Your task to perform on an android device: Open Yahoo.com Image 0: 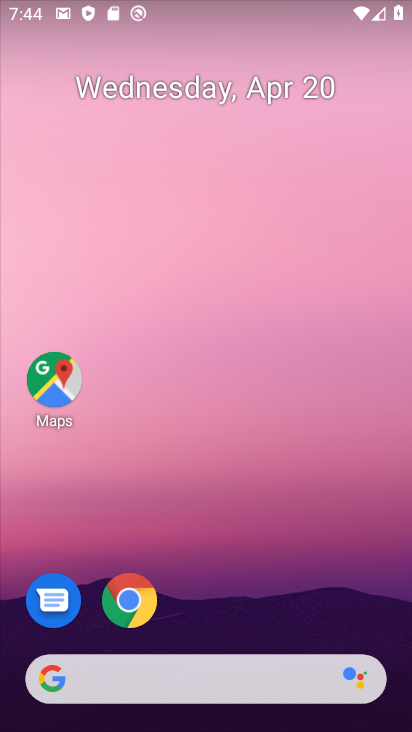
Step 0: click (130, 602)
Your task to perform on an android device: Open Yahoo.com Image 1: 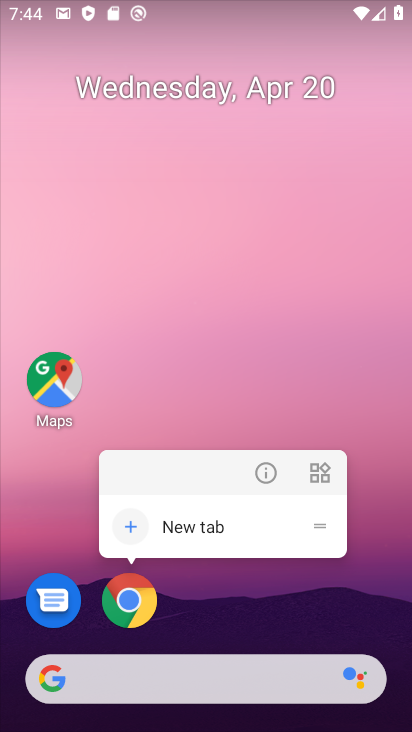
Step 1: click (130, 609)
Your task to perform on an android device: Open Yahoo.com Image 2: 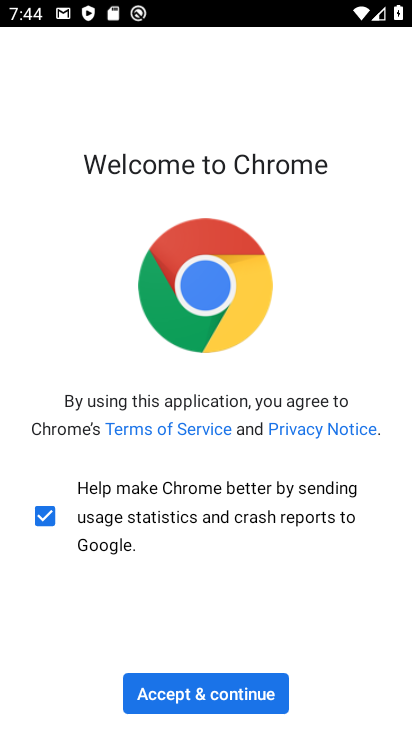
Step 2: click (221, 692)
Your task to perform on an android device: Open Yahoo.com Image 3: 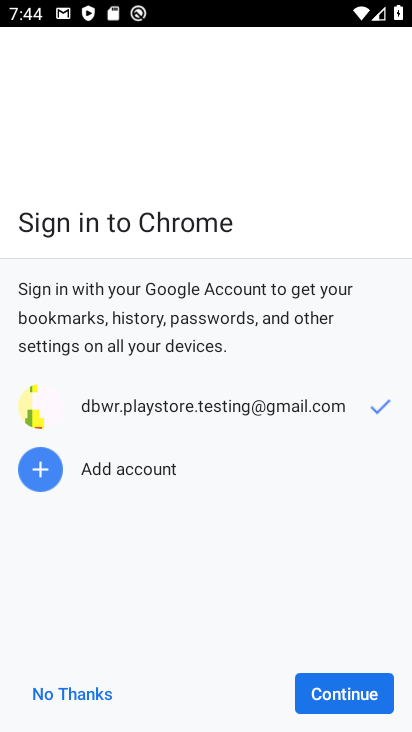
Step 3: click (355, 696)
Your task to perform on an android device: Open Yahoo.com Image 4: 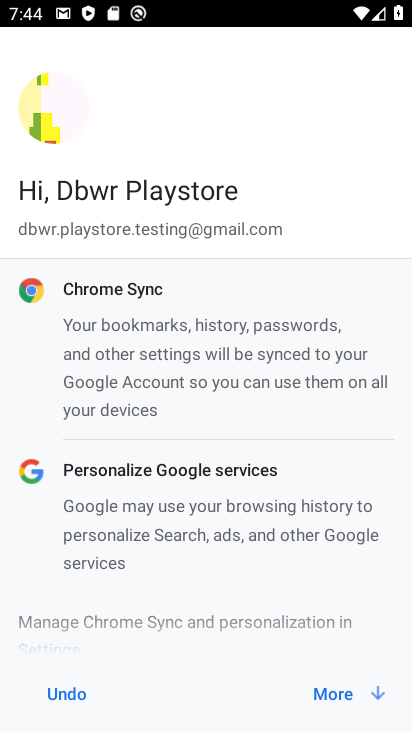
Step 4: click (332, 694)
Your task to perform on an android device: Open Yahoo.com Image 5: 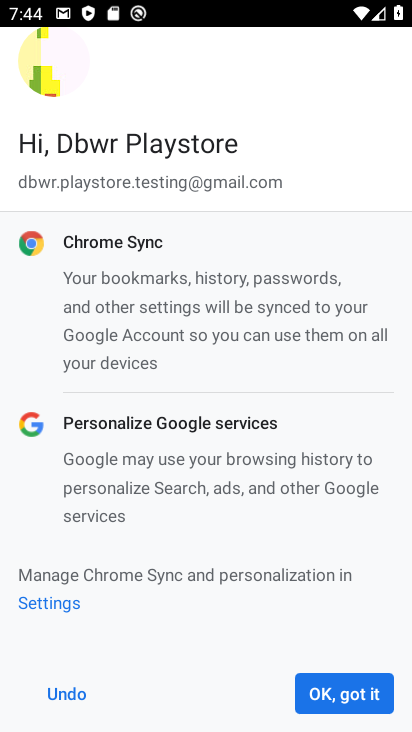
Step 5: click (332, 694)
Your task to perform on an android device: Open Yahoo.com Image 6: 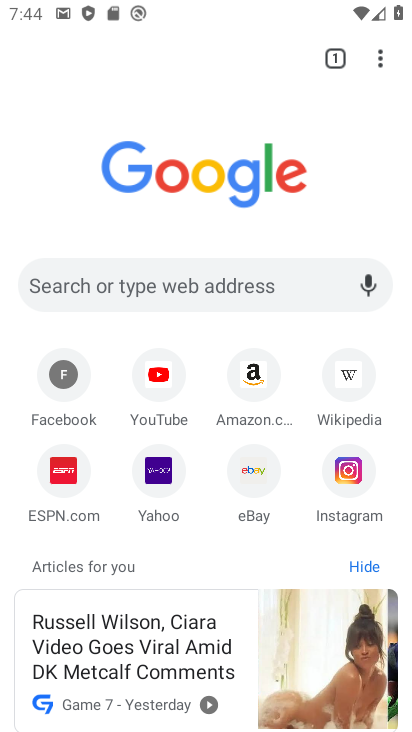
Step 6: click (146, 285)
Your task to perform on an android device: Open Yahoo.com Image 7: 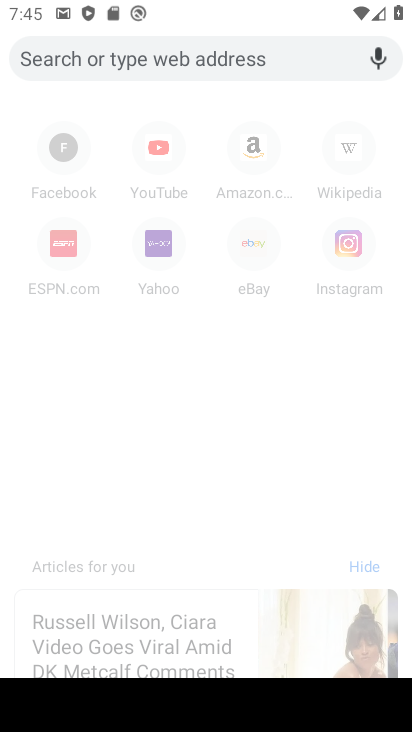
Step 7: type "Yahoo.com"
Your task to perform on an android device: Open Yahoo.com Image 8: 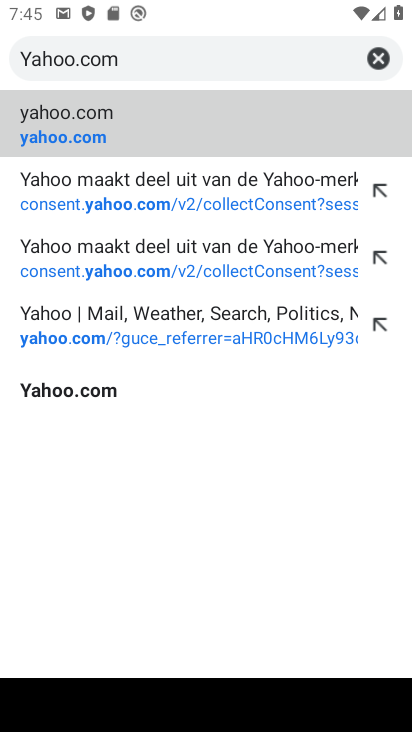
Step 8: click (84, 178)
Your task to perform on an android device: Open Yahoo.com Image 9: 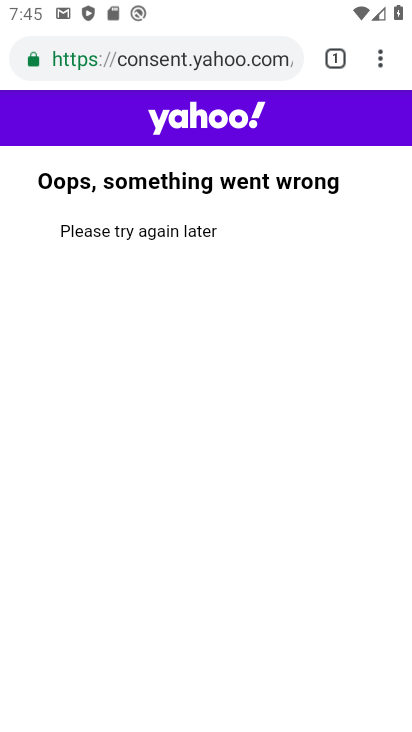
Step 9: task complete